Your task to perform on an android device: check data usage Image 0: 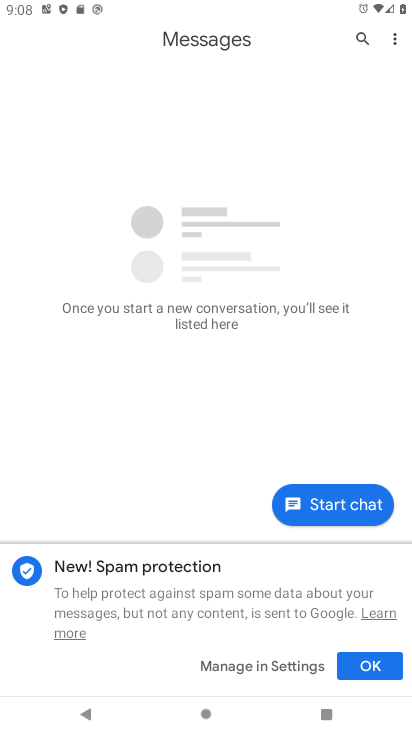
Step 0: press home button
Your task to perform on an android device: check data usage Image 1: 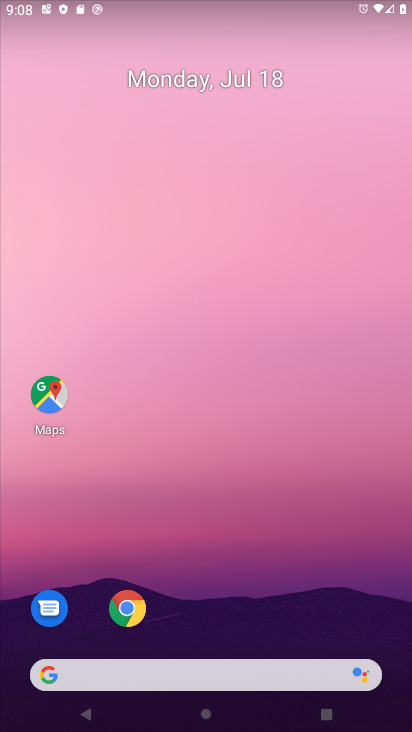
Step 1: drag from (243, 726) to (249, 95)
Your task to perform on an android device: check data usage Image 2: 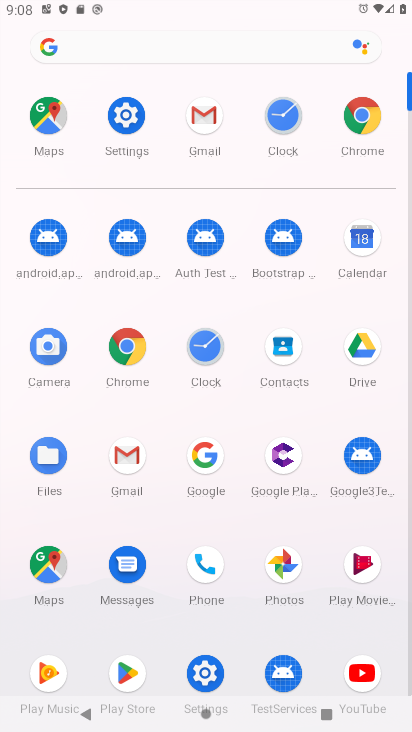
Step 2: click (126, 110)
Your task to perform on an android device: check data usage Image 3: 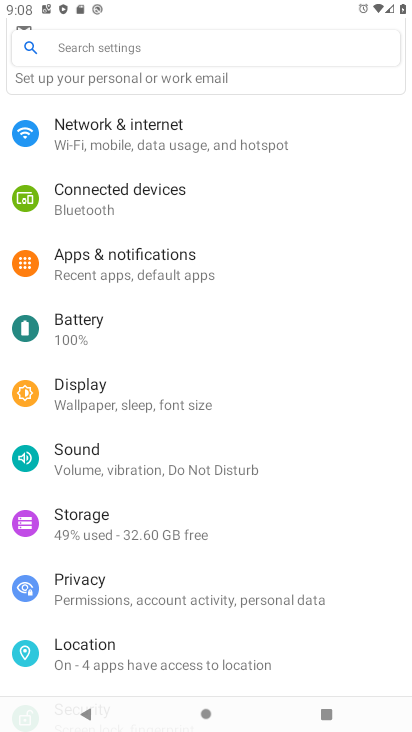
Step 3: click (134, 143)
Your task to perform on an android device: check data usage Image 4: 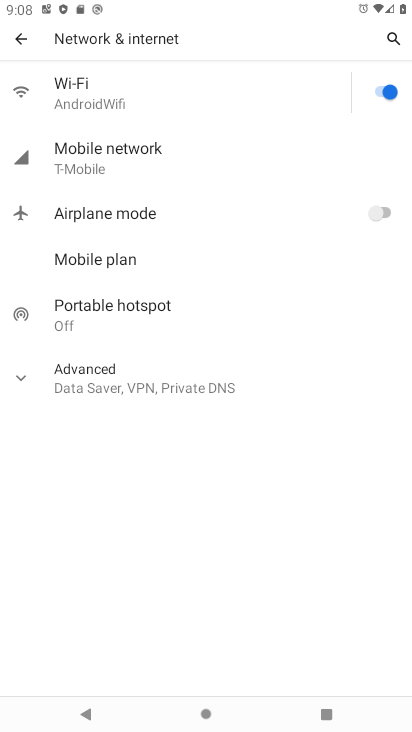
Step 4: click (134, 143)
Your task to perform on an android device: check data usage Image 5: 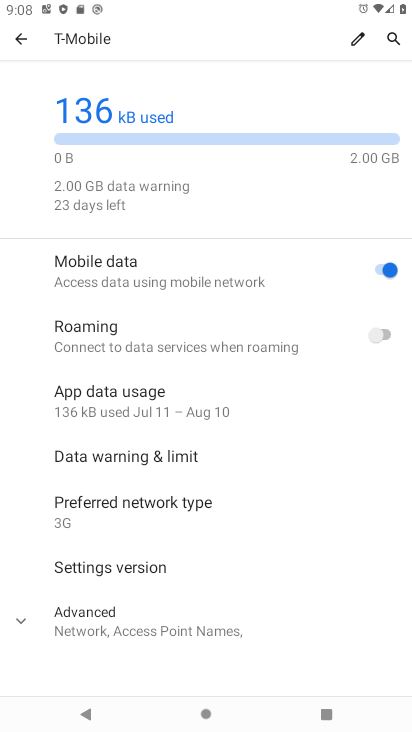
Step 5: click (103, 400)
Your task to perform on an android device: check data usage Image 6: 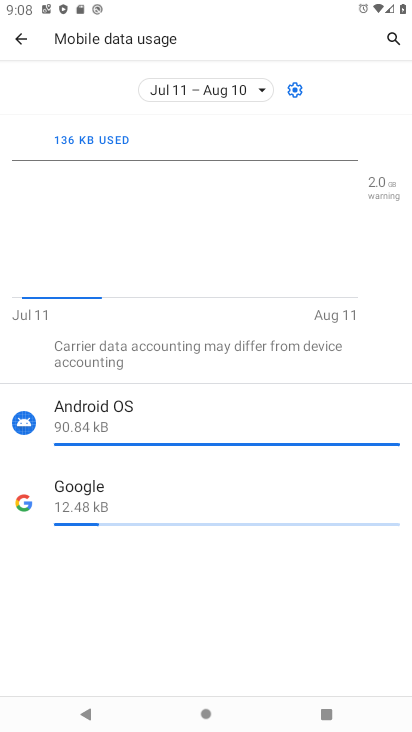
Step 6: task complete